Your task to perform on an android device: remove spam from my inbox in the gmail app Image 0: 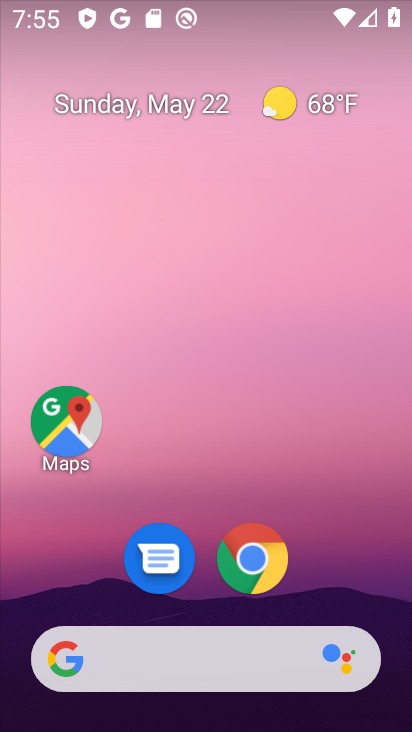
Step 0: drag from (343, 567) to (273, 178)
Your task to perform on an android device: remove spam from my inbox in the gmail app Image 1: 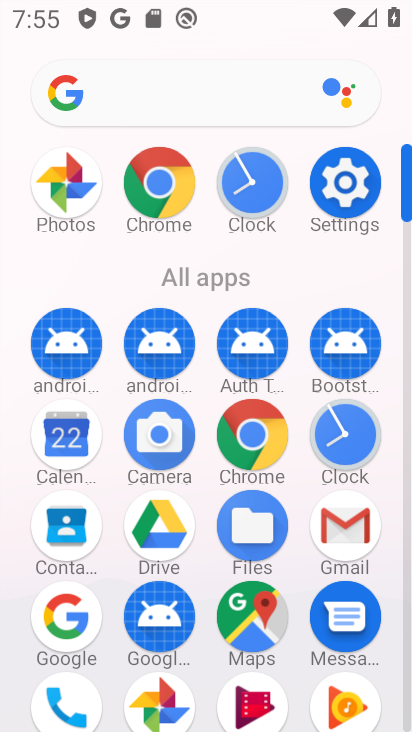
Step 1: click (339, 507)
Your task to perform on an android device: remove spam from my inbox in the gmail app Image 2: 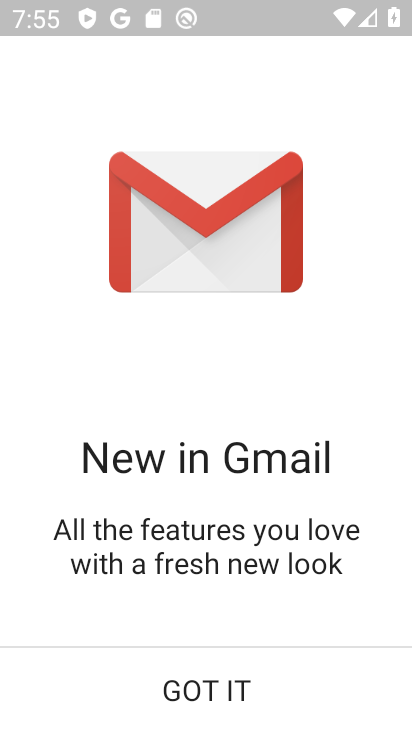
Step 2: click (239, 714)
Your task to perform on an android device: remove spam from my inbox in the gmail app Image 3: 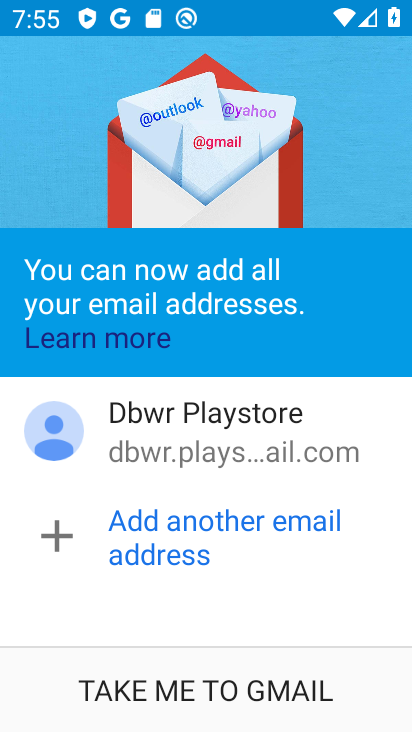
Step 3: click (237, 704)
Your task to perform on an android device: remove spam from my inbox in the gmail app Image 4: 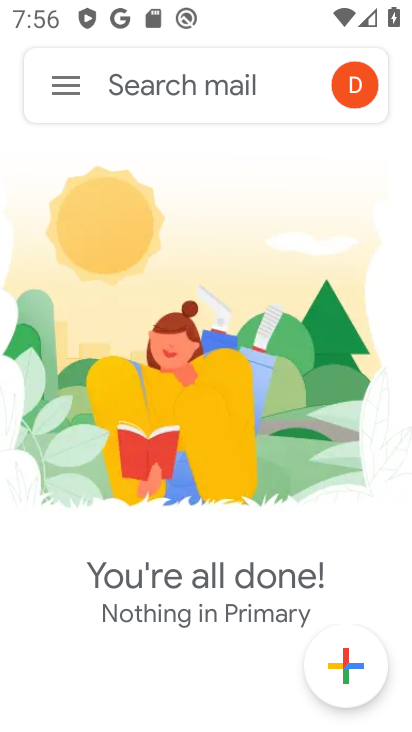
Step 4: click (73, 86)
Your task to perform on an android device: remove spam from my inbox in the gmail app Image 5: 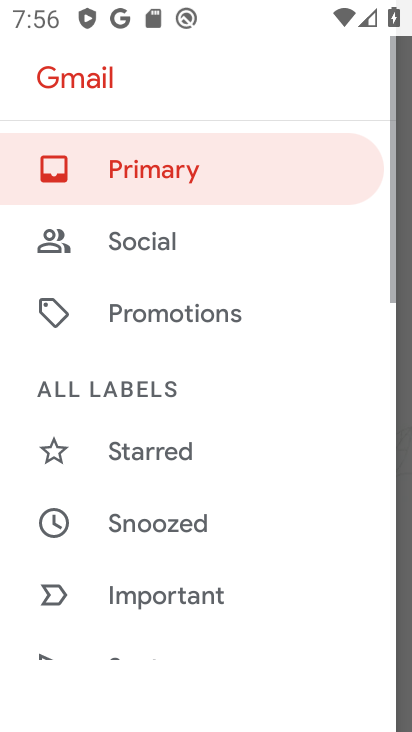
Step 5: drag from (212, 526) to (272, 210)
Your task to perform on an android device: remove spam from my inbox in the gmail app Image 6: 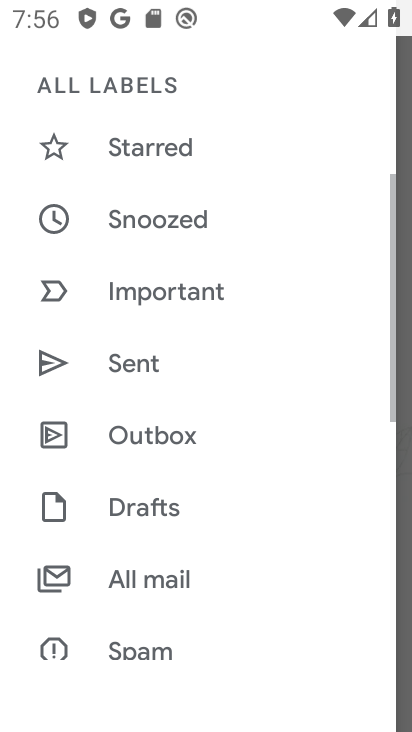
Step 6: drag from (217, 607) to (261, 271)
Your task to perform on an android device: remove spam from my inbox in the gmail app Image 7: 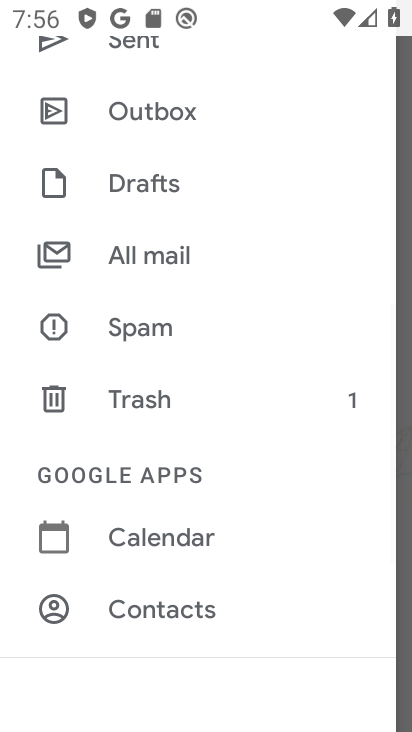
Step 7: click (139, 342)
Your task to perform on an android device: remove spam from my inbox in the gmail app Image 8: 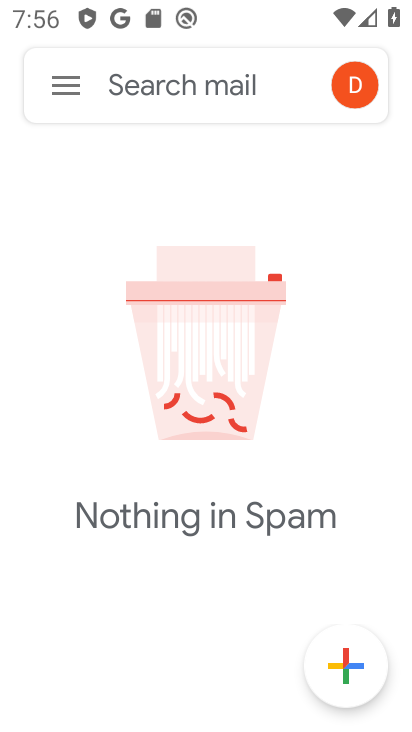
Step 8: task complete